Your task to perform on an android device: clear all cookies in the chrome app Image 0: 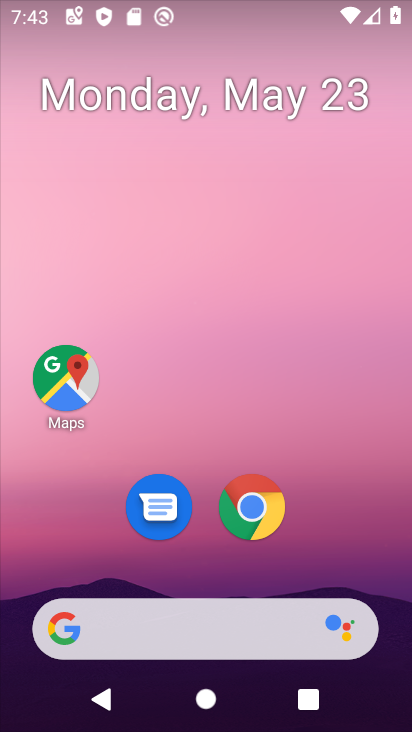
Step 0: drag from (354, 520) to (336, 214)
Your task to perform on an android device: clear all cookies in the chrome app Image 1: 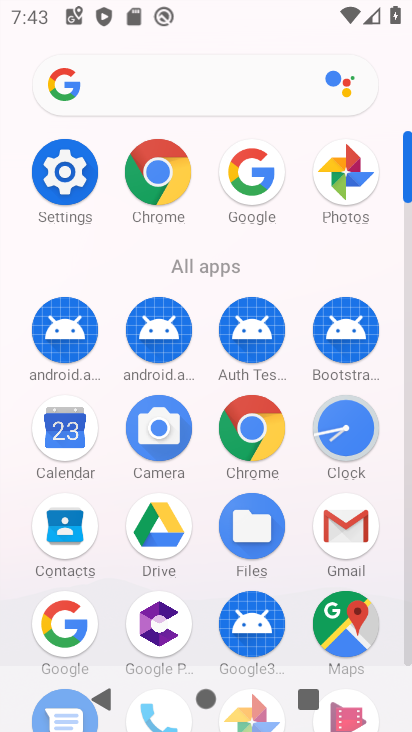
Step 1: click (243, 415)
Your task to perform on an android device: clear all cookies in the chrome app Image 2: 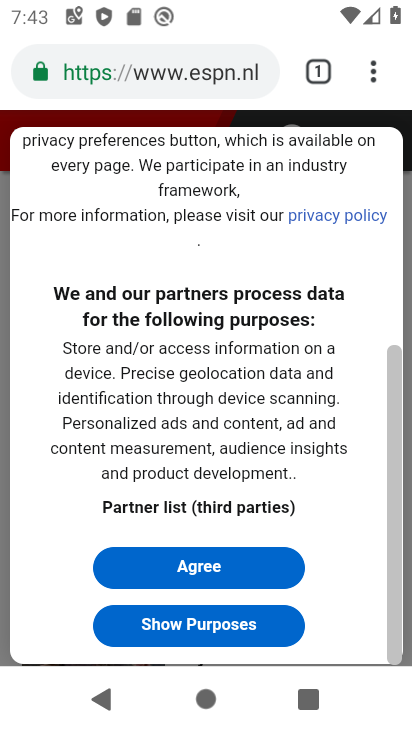
Step 2: drag from (368, 83) to (152, 412)
Your task to perform on an android device: clear all cookies in the chrome app Image 3: 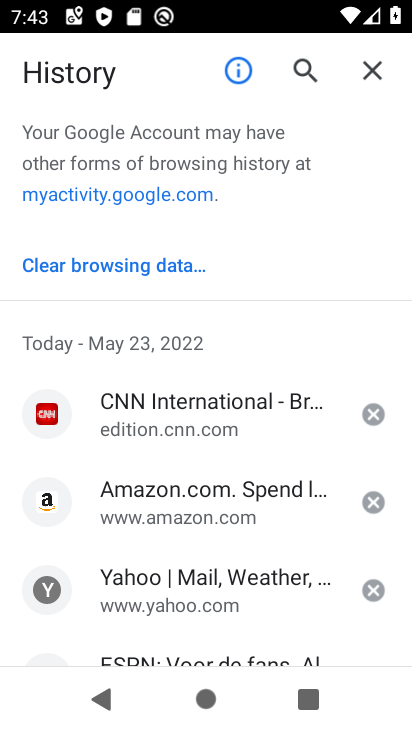
Step 3: click (145, 263)
Your task to perform on an android device: clear all cookies in the chrome app Image 4: 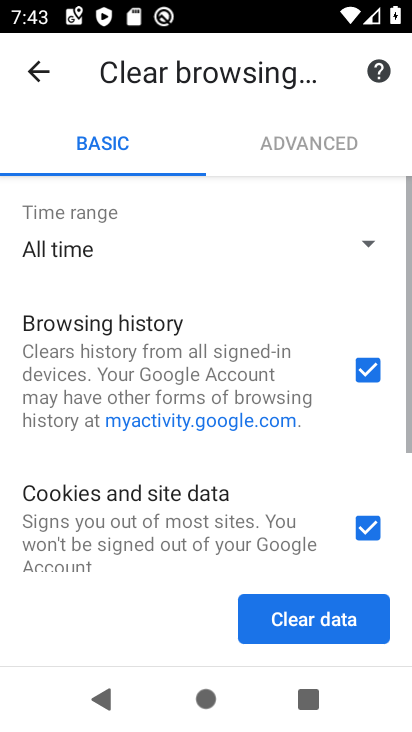
Step 4: click (368, 374)
Your task to perform on an android device: clear all cookies in the chrome app Image 5: 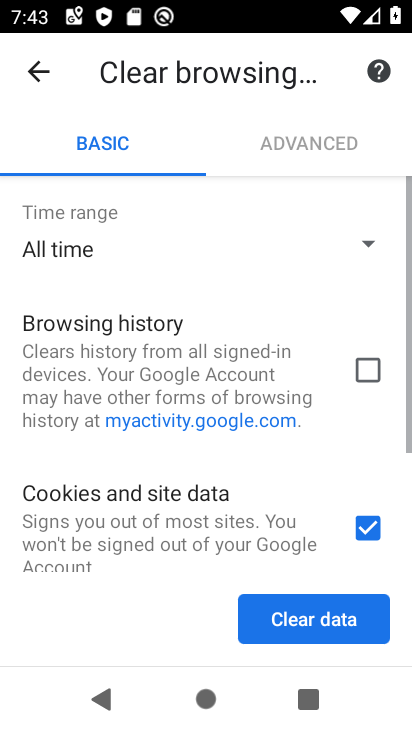
Step 5: drag from (269, 507) to (274, 270)
Your task to perform on an android device: clear all cookies in the chrome app Image 6: 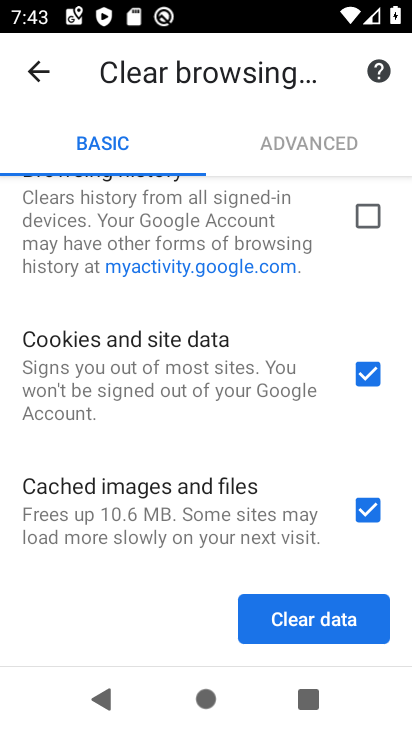
Step 6: click (276, 618)
Your task to perform on an android device: clear all cookies in the chrome app Image 7: 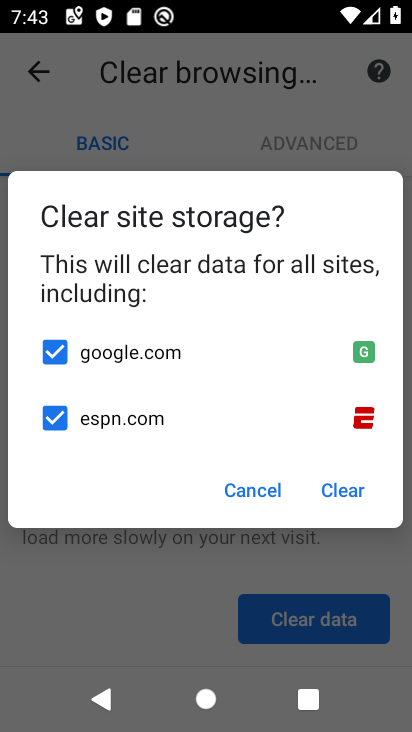
Step 7: click (334, 501)
Your task to perform on an android device: clear all cookies in the chrome app Image 8: 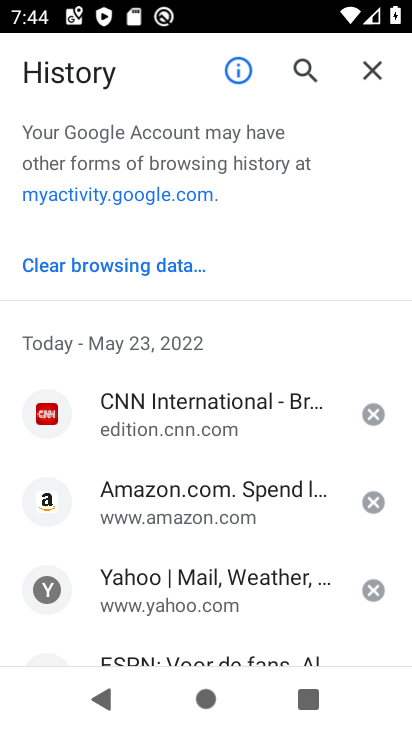
Step 8: task complete